Your task to perform on an android device: open app "Facebook Messenger" (install if not already installed), go to login, and select forgot password Image 0: 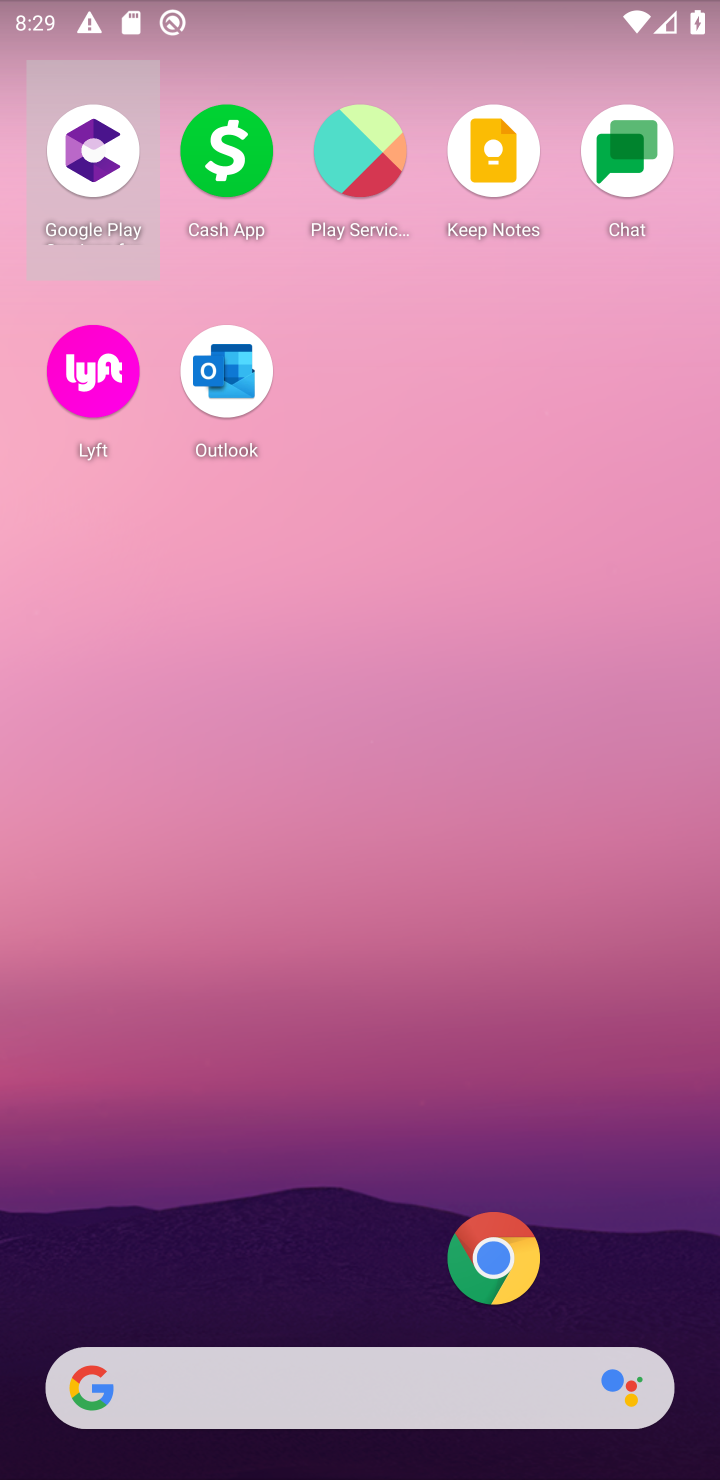
Step 0: drag from (476, 1116) to (701, 652)
Your task to perform on an android device: open app "Facebook Messenger" (install if not already installed), go to login, and select forgot password Image 1: 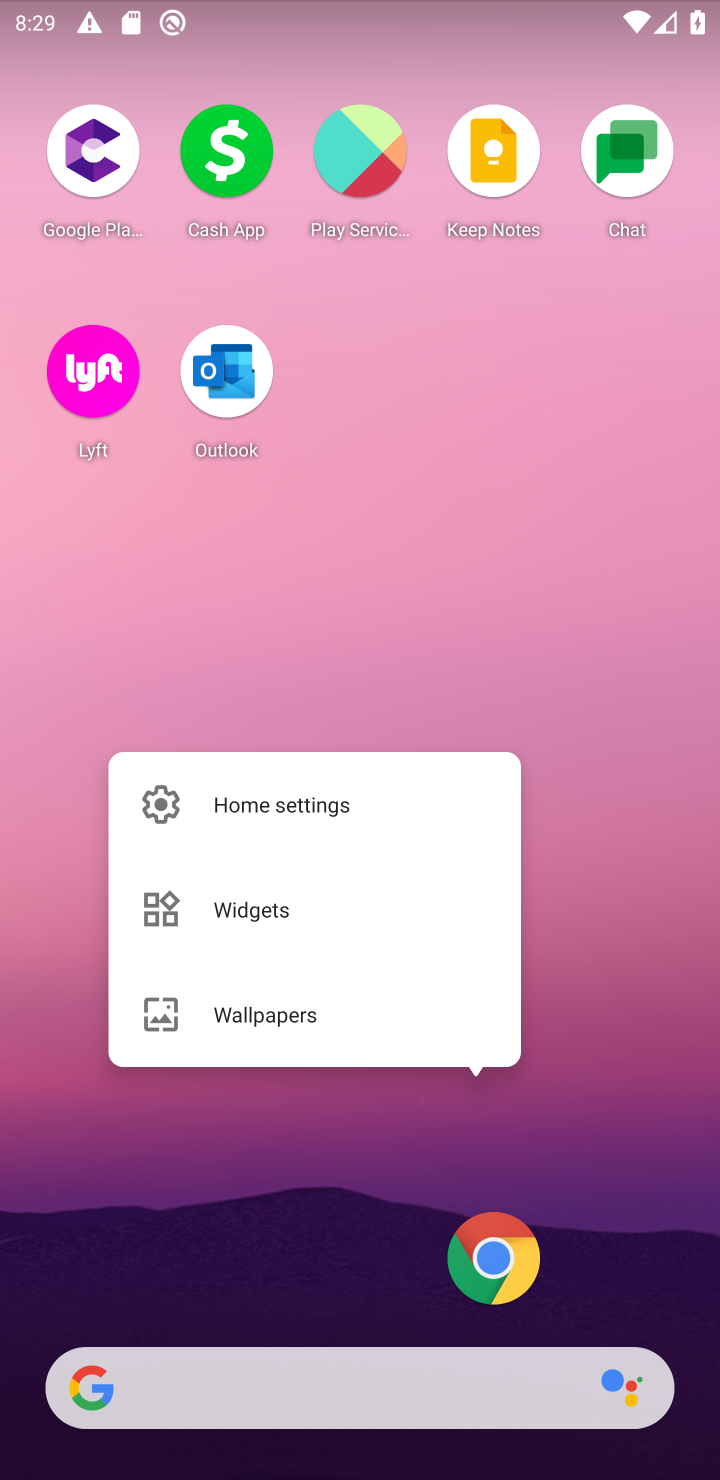
Step 1: click (608, 635)
Your task to perform on an android device: open app "Facebook Messenger" (install if not already installed), go to login, and select forgot password Image 2: 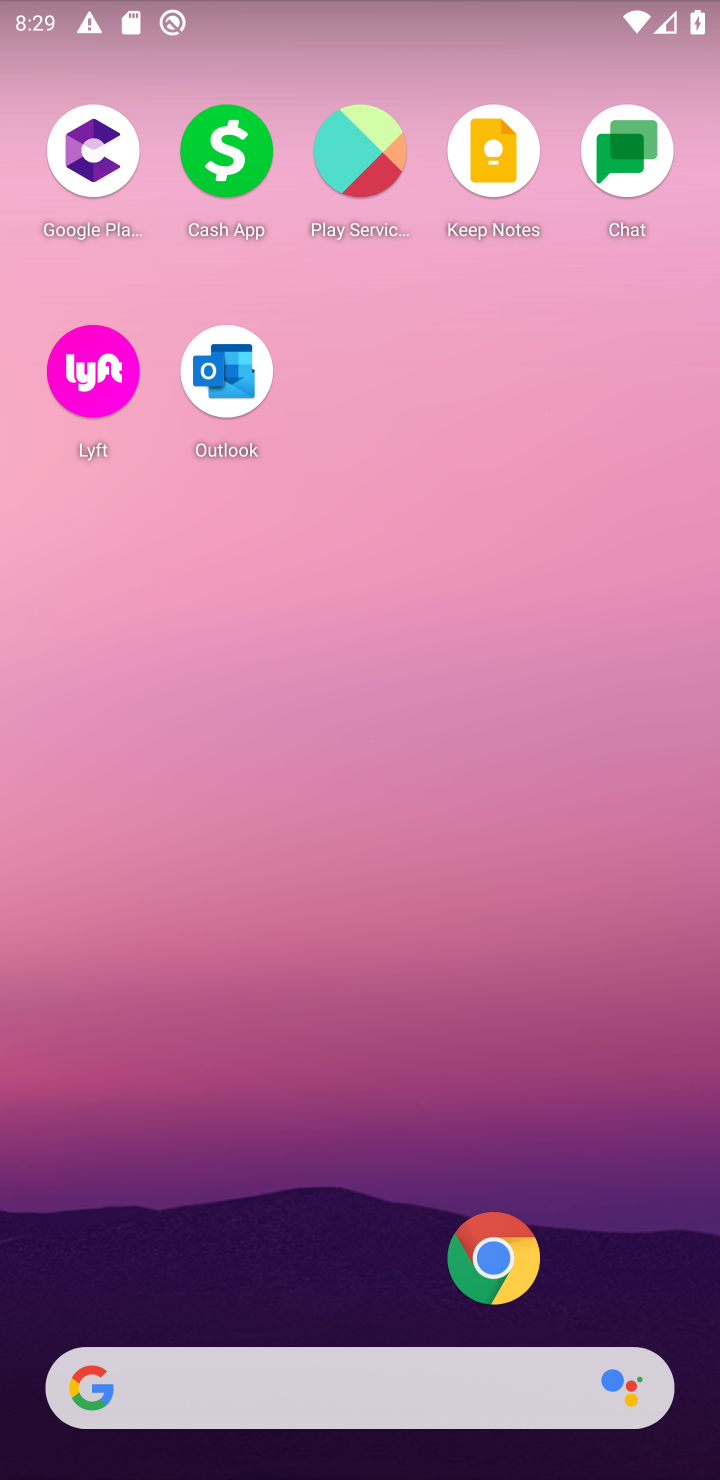
Step 2: drag from (519, 799) to (382, 23)
Your task to perform on an android device: open app "Facebook Messenger" (install if not already installed), go to login, and select forgot password Image 3: 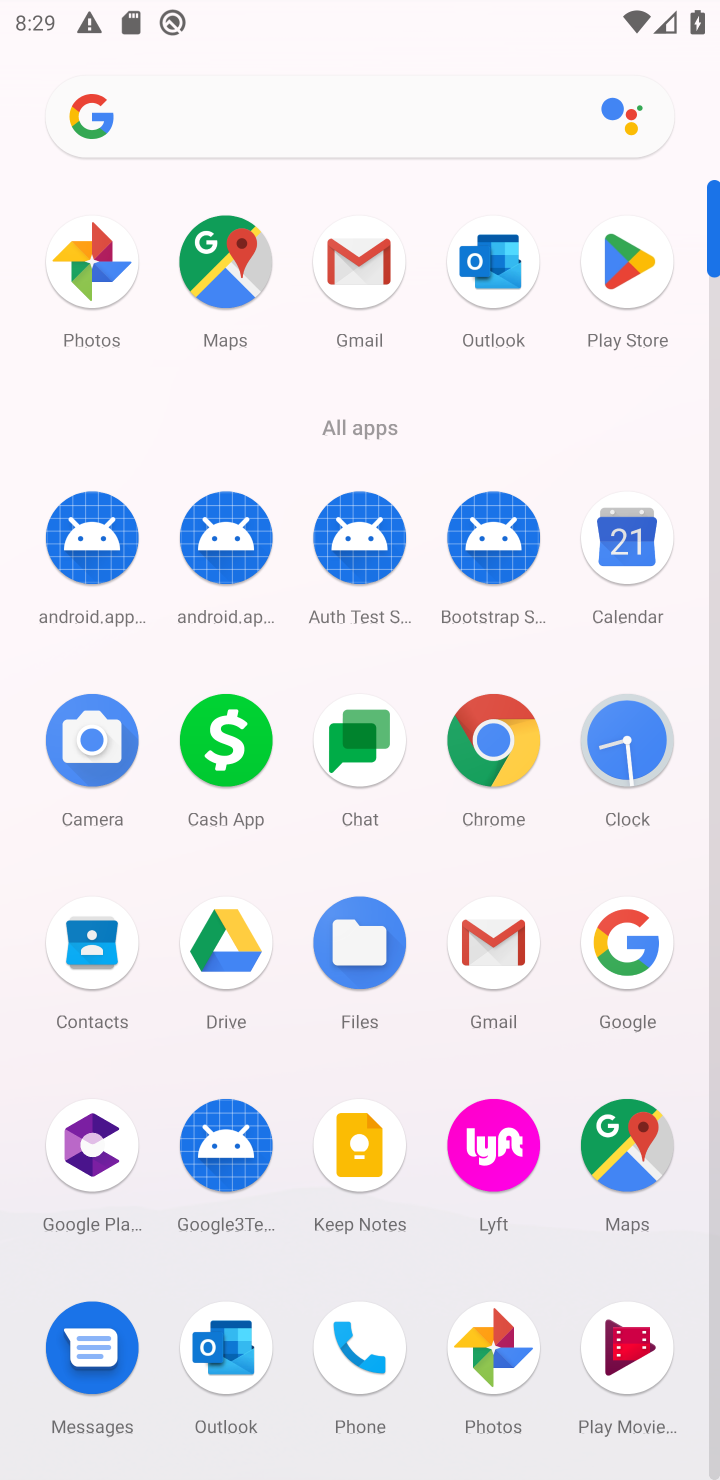
Step 3: click (625, 256)
Your task to perform on an android device: open app "Facebook Messenger" (install if not already installed), go to login, and select forgot password Image 4: 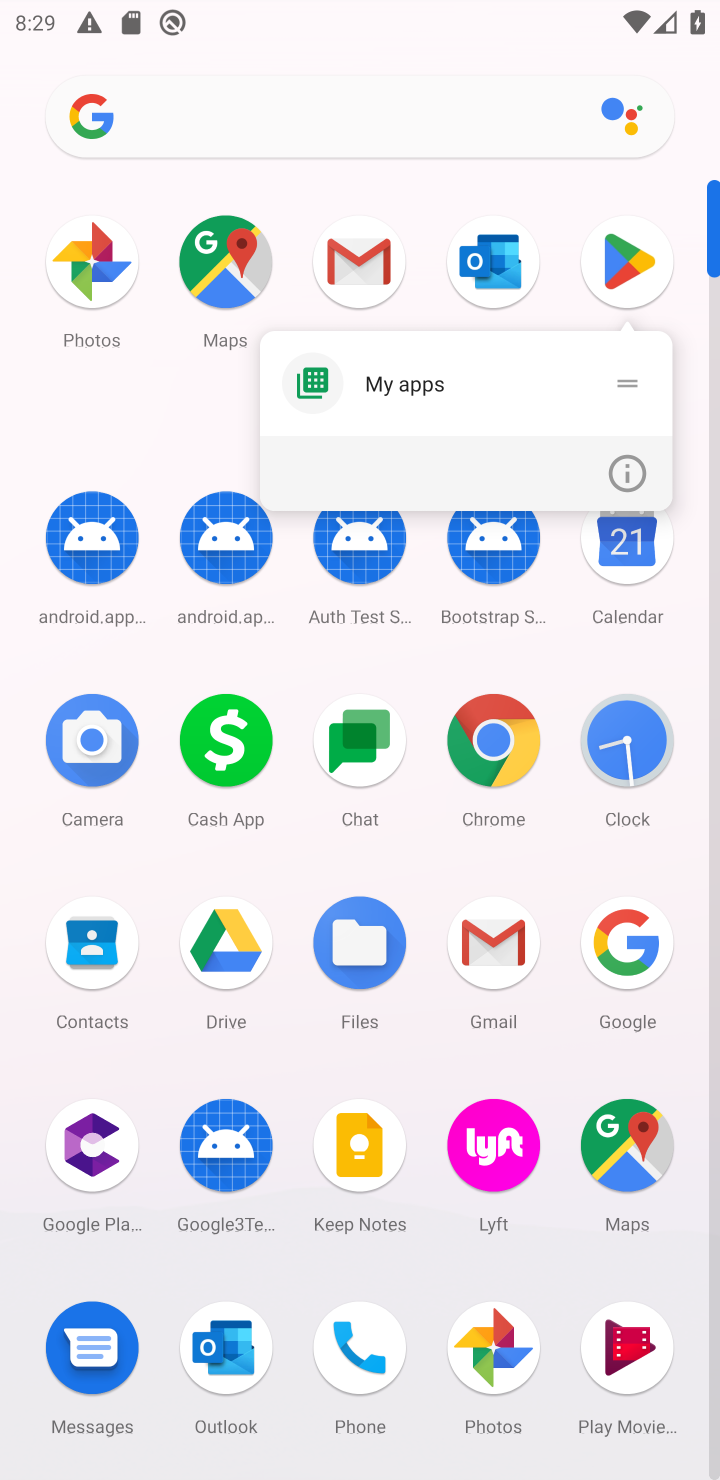
Step 4: click (625, 254)
Your task to perform on an android device: open app "Facebook Messenger" (install if not already installed), go to login, and select forgot password Image 5: 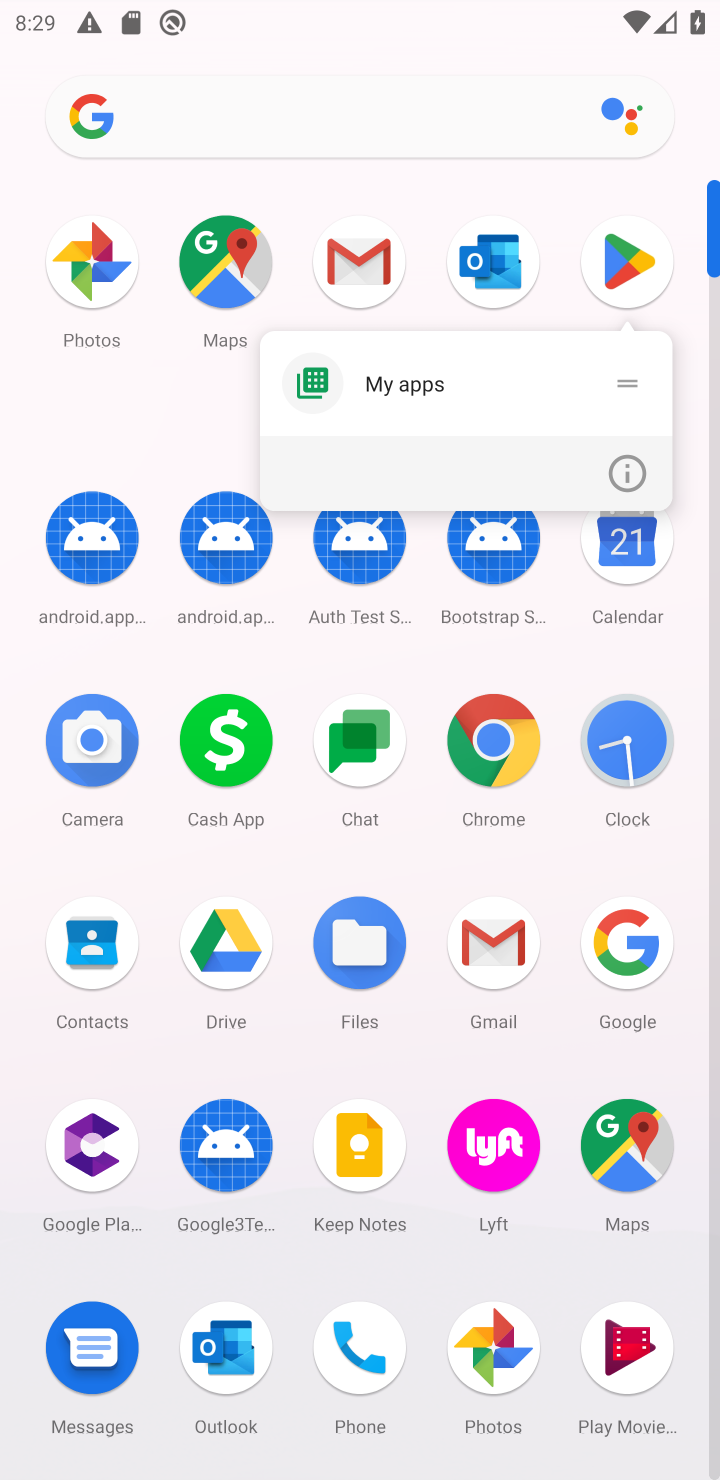
Step 5: click (631, 268)
Your task to perform on an android device: open app "Facebook Messenger" (install if not already installed), go to login, and select forgot password Image 6: 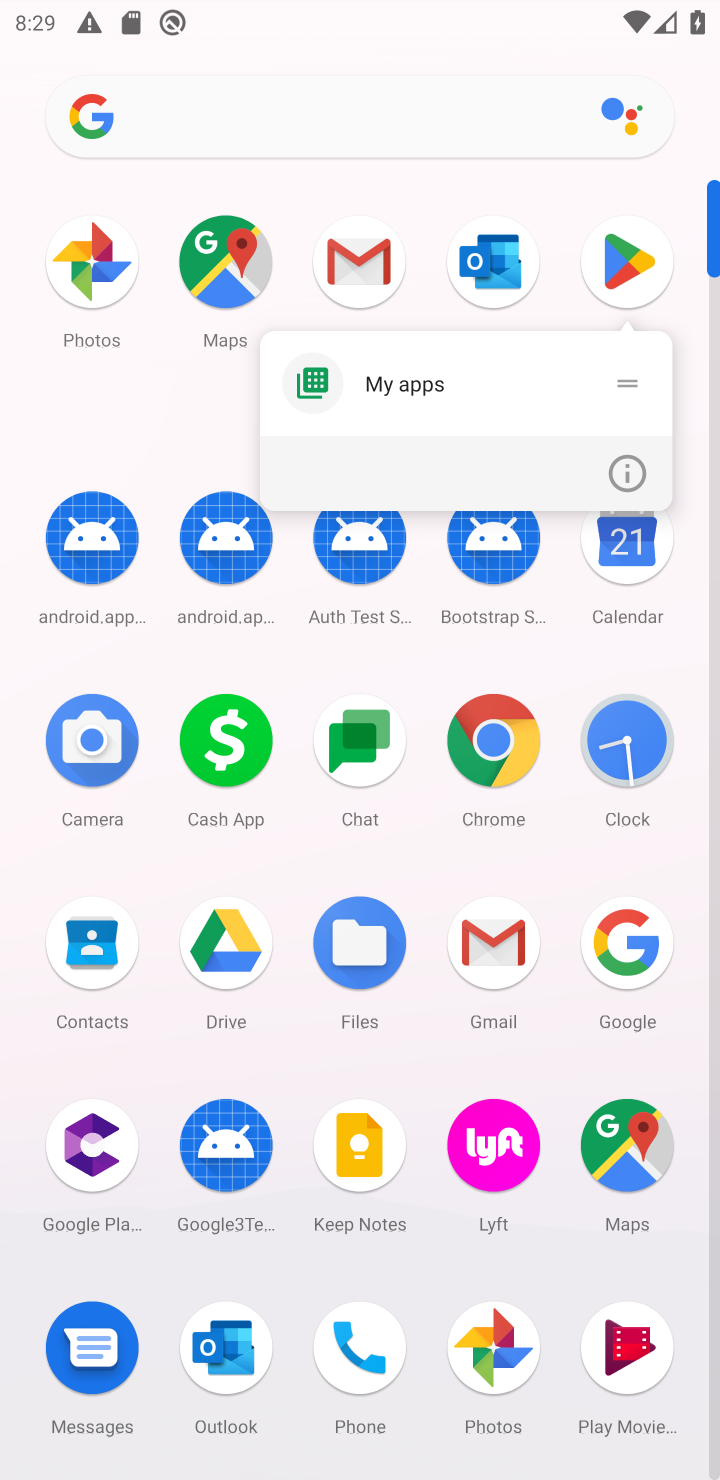
Step 6: click (631, 268)
Your task to perform on an android device: open app "Facebook Messenger" (install if not already installed), go to login, and select forgot password Image 7: 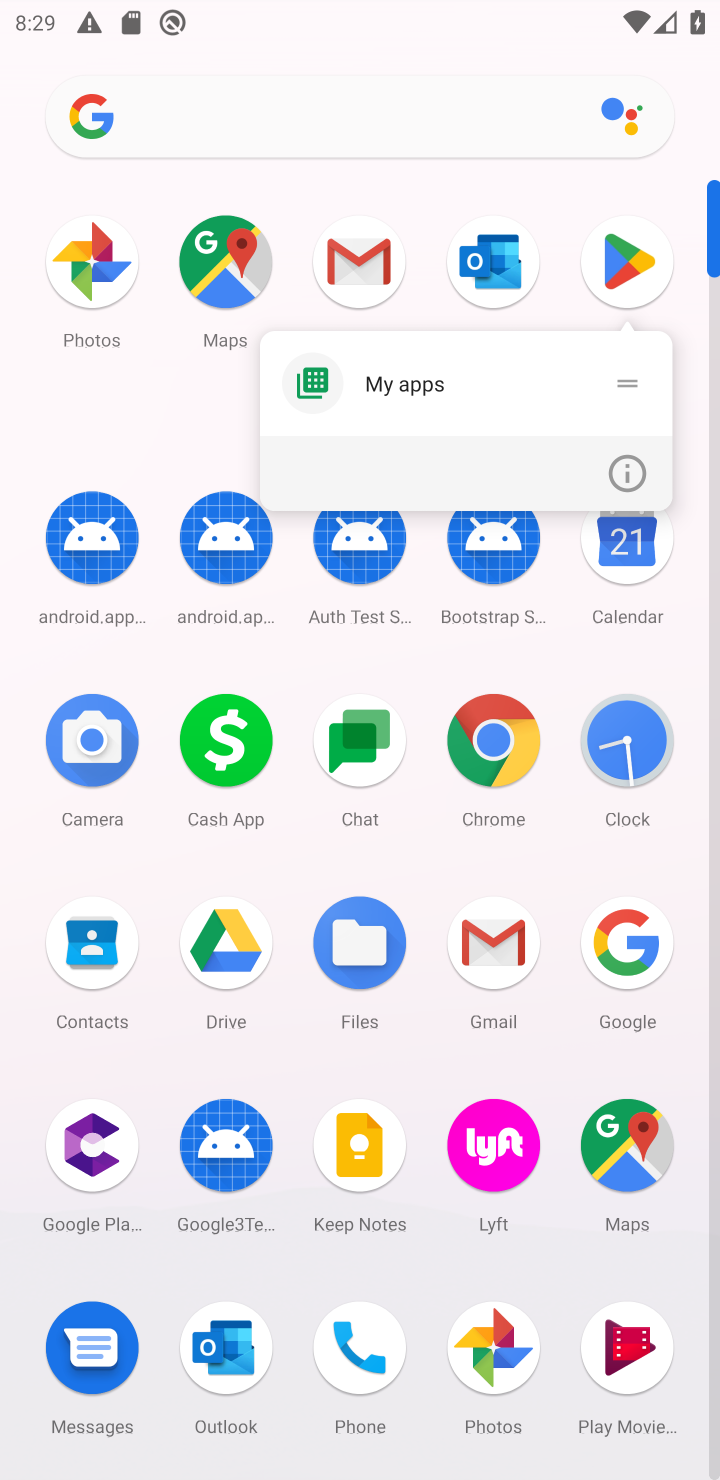
Step 7: click (631, 268)
Your task to perform on an android device: open app "Facebook Messenger" (install if not already installed), go to login, and select forgot password Image 8: 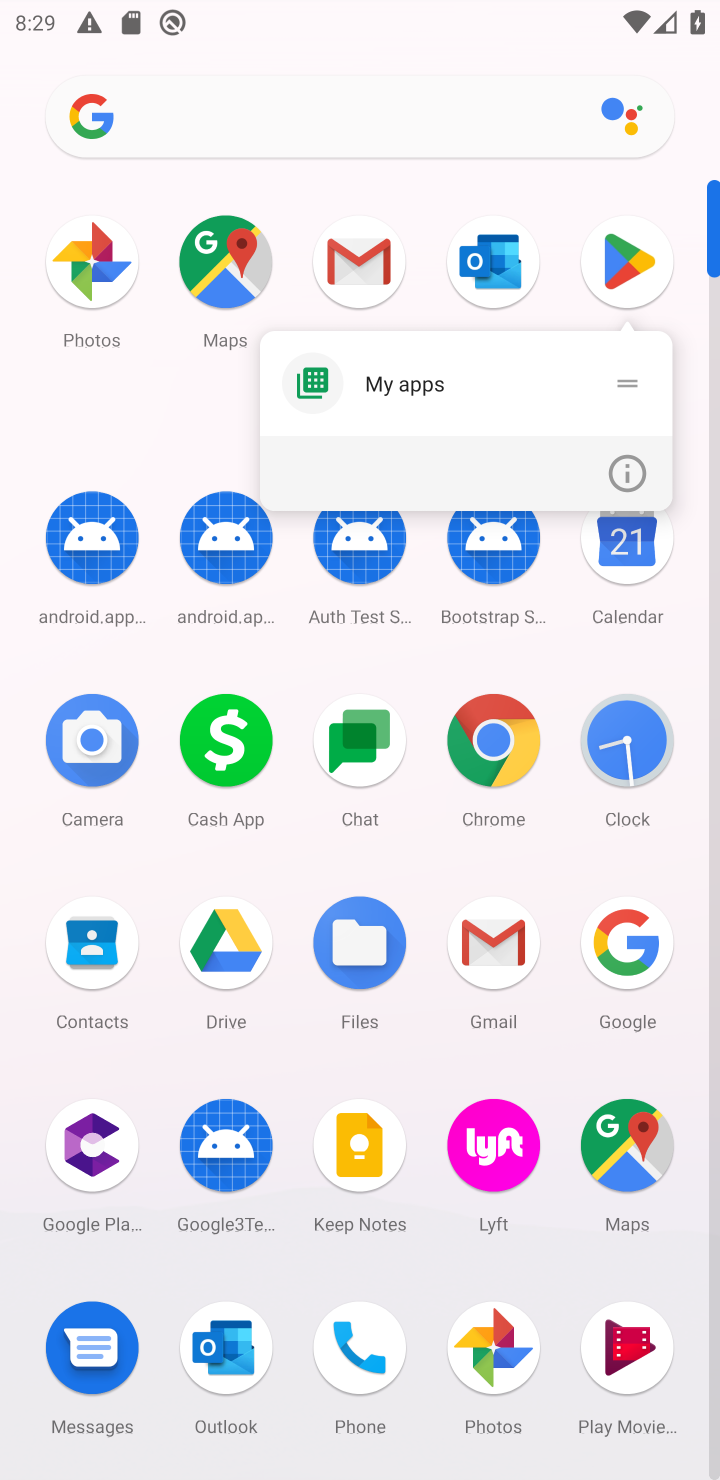
Step 8: click (631, 266)
Your task to perform on an android device: open app "Facebook Messenger" (install if not already installed), go to login, and select forgot password Image 9: 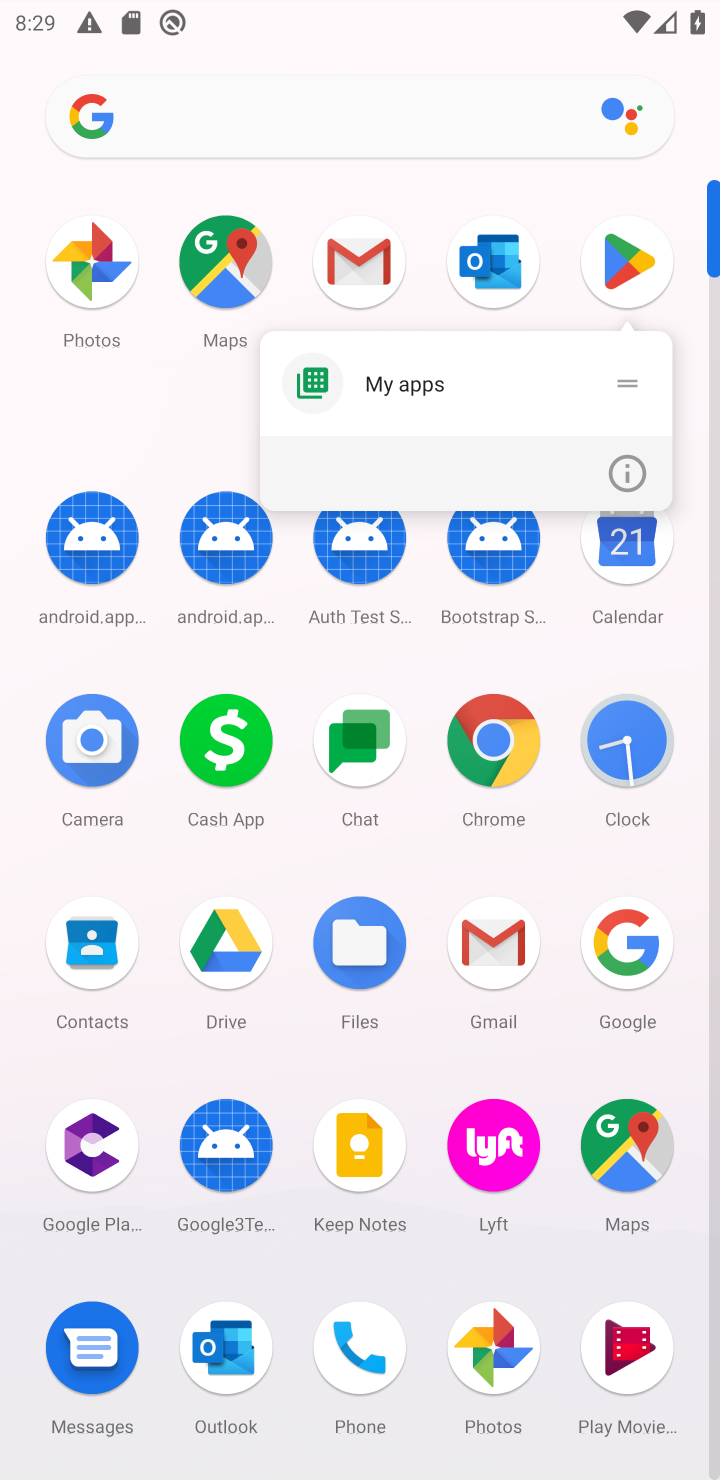
Step 9: click (631, 266)
Your task to perform on an android device: open app "Facebook Messenger" (install if not already installed), go to login, and select forgot password Image 10: 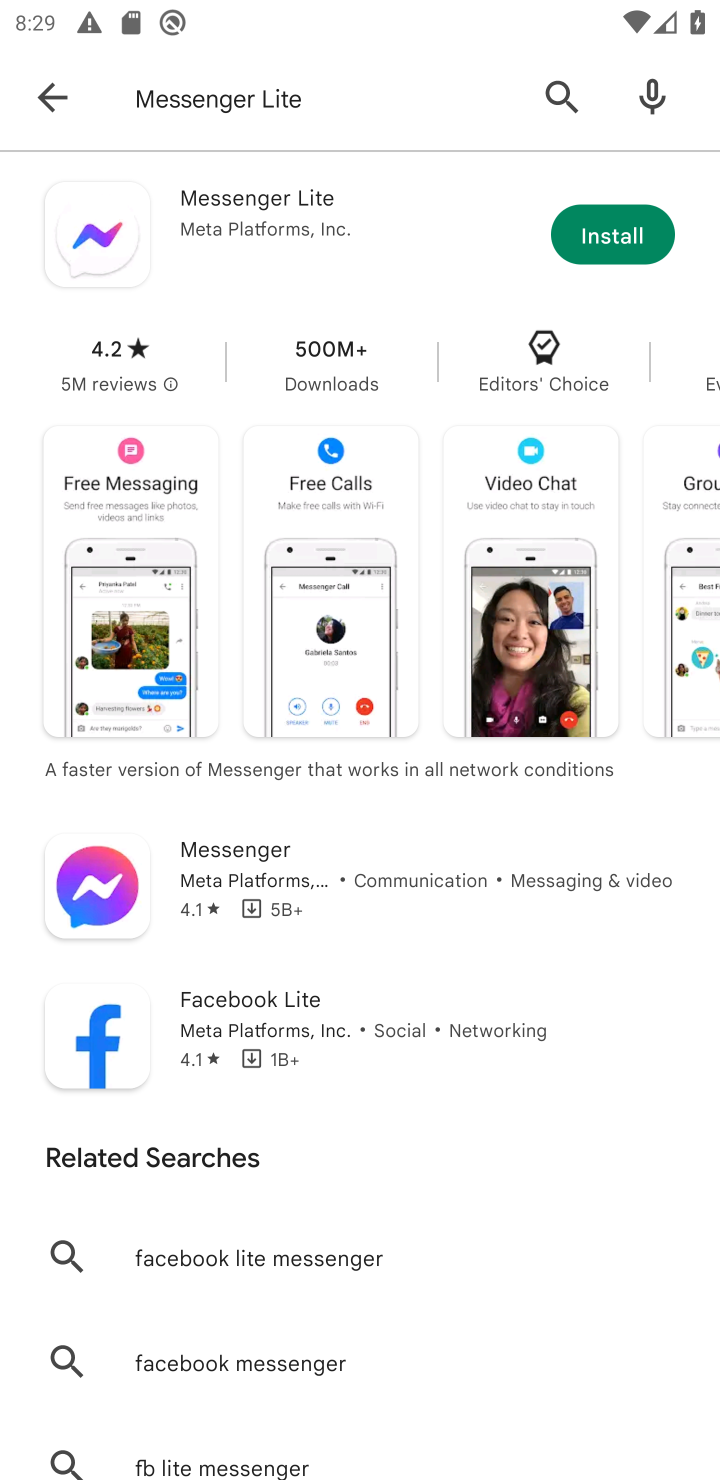
Step 10: press back button
Your task to perform on an android device: open app "Facebook Messenger" (install if not already installed), go to login, and select forgot password Image 11: 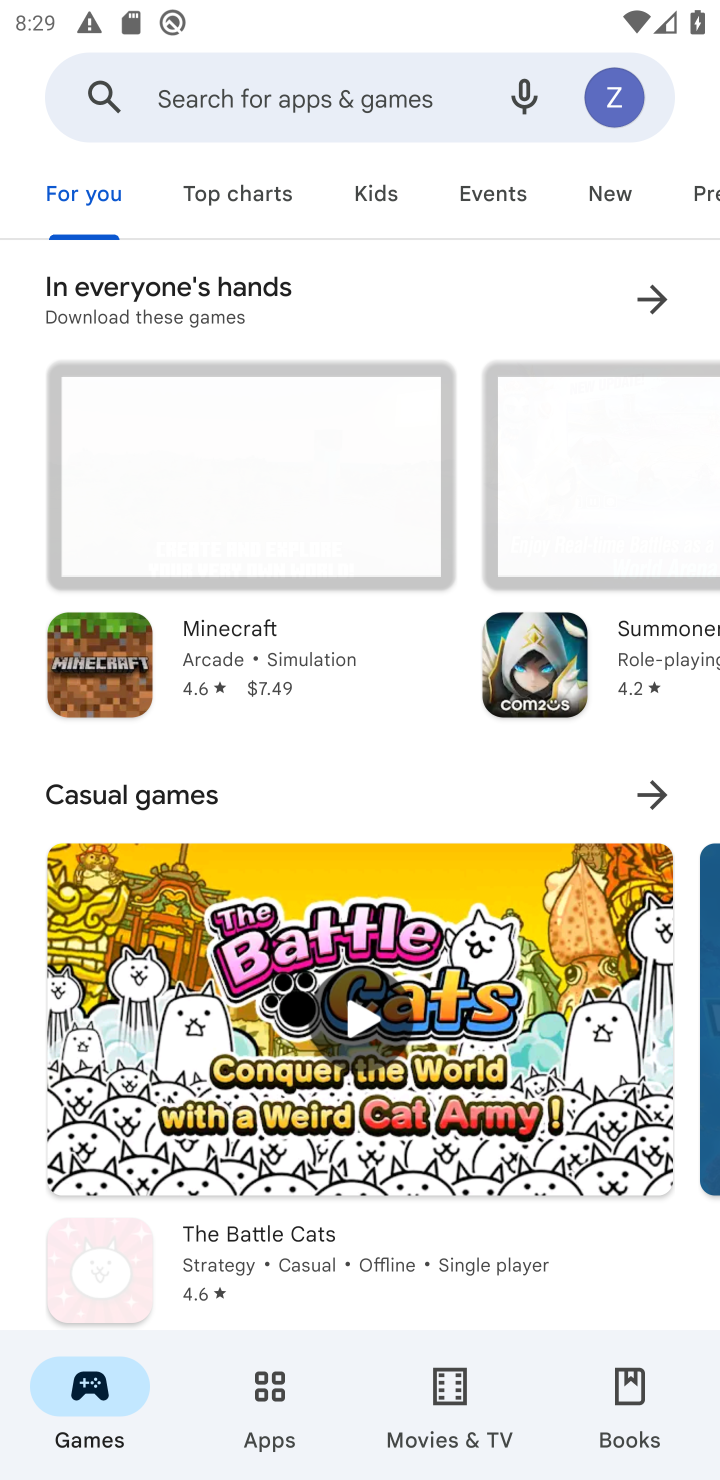
Step 11: click (242, 83)
Your task to perform on an android device: open app "Facebook Messenger" (install if not already installed), go to login, and select forgot password Image 12: 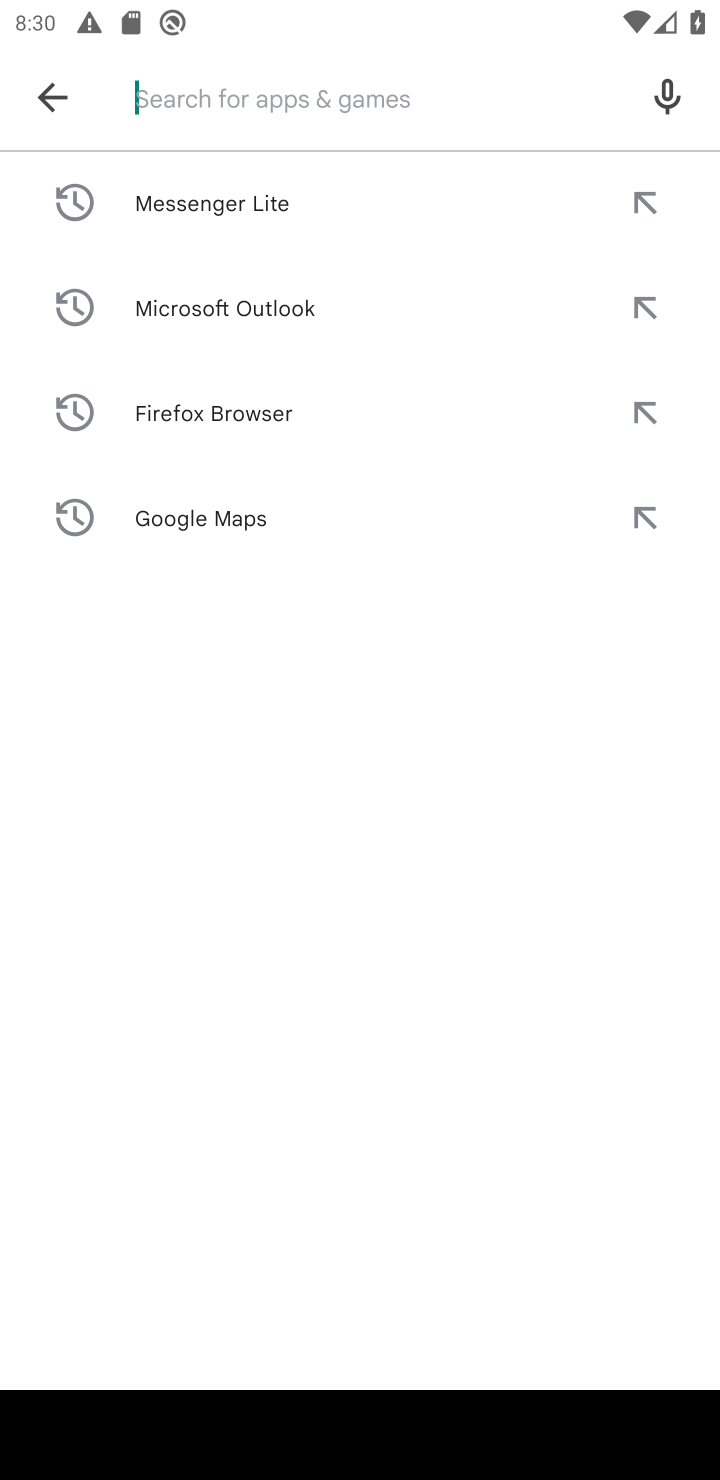
Step 12: type "Facebook Messenger"
Your task to perform on an android device: open app "Facebook Messenger" (install if not already installed), go to login, and select forgot password Image 13: 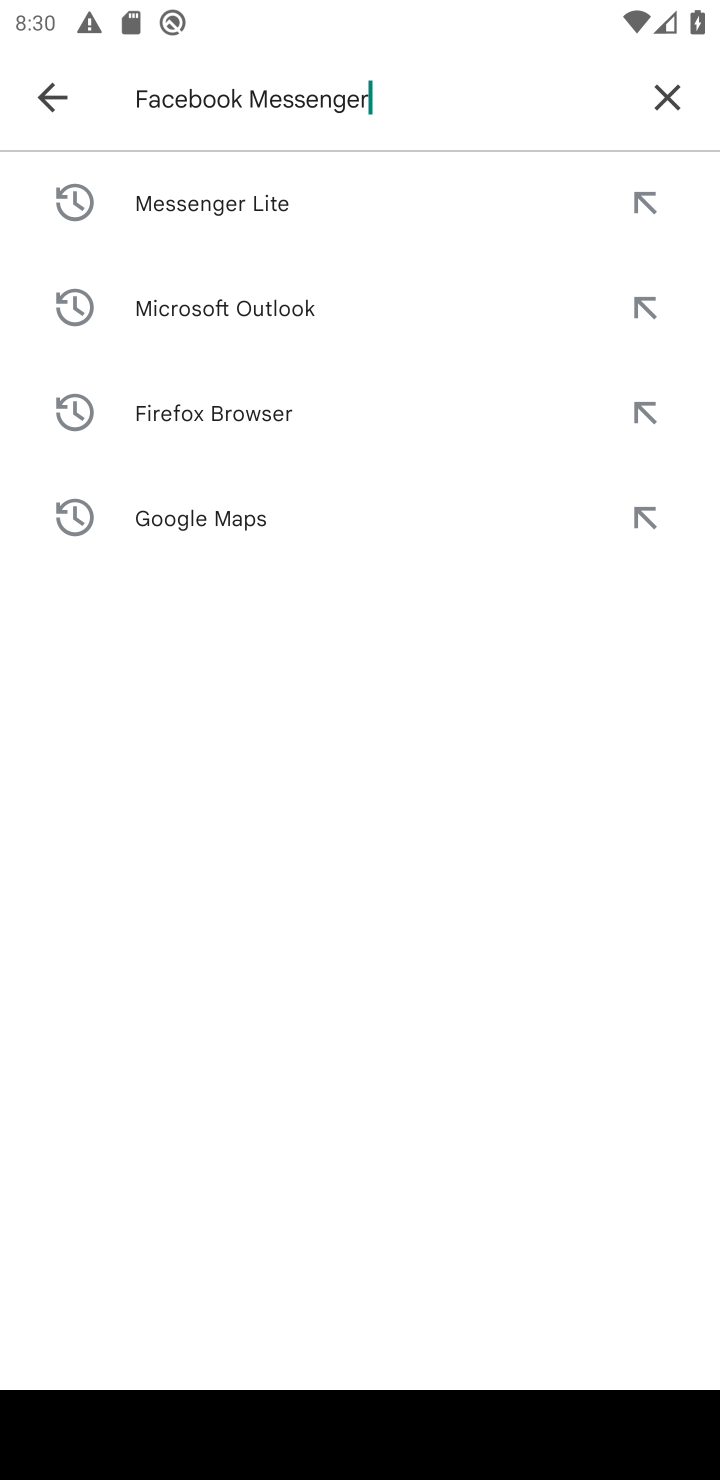
Step 13: press enter
Your task to perform on an android device: open app "Facebook Messenger" (install if not already installed), go to login, and select forgot password Image 14: 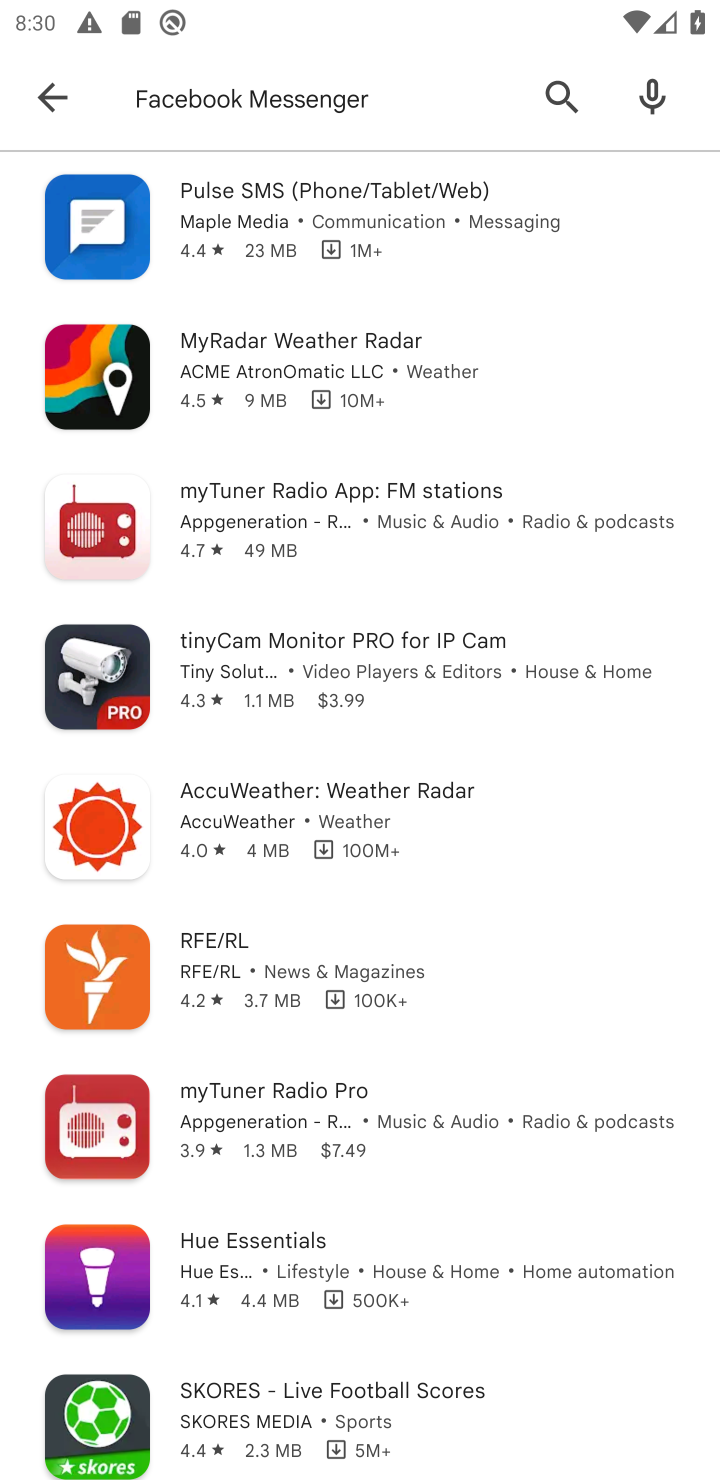
Step 14: task complete